Your task to perform on an android device: Do I have any events today? Image 0: 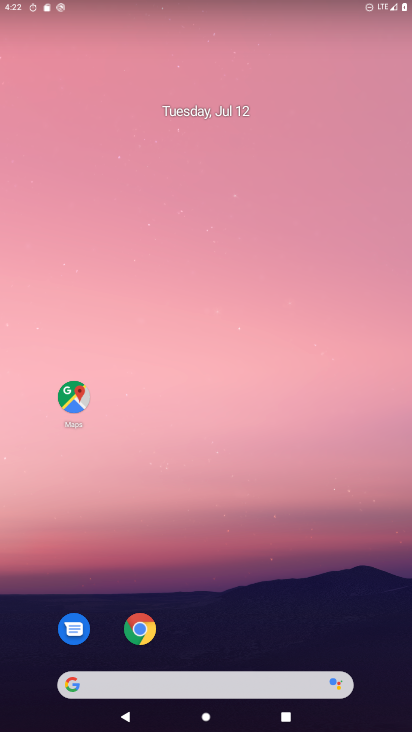
Step 0: press home button
Your task to perform on an android device: Do I have any events today? Image 1: 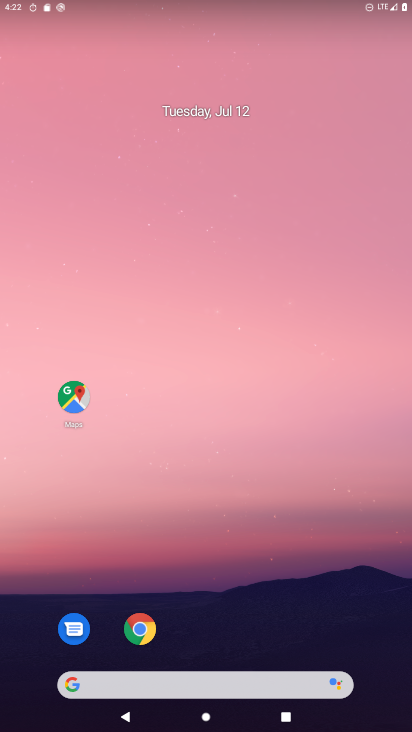
Step 1: press home button
Your task to perform on an android device: Do I have any events today? Image 2: 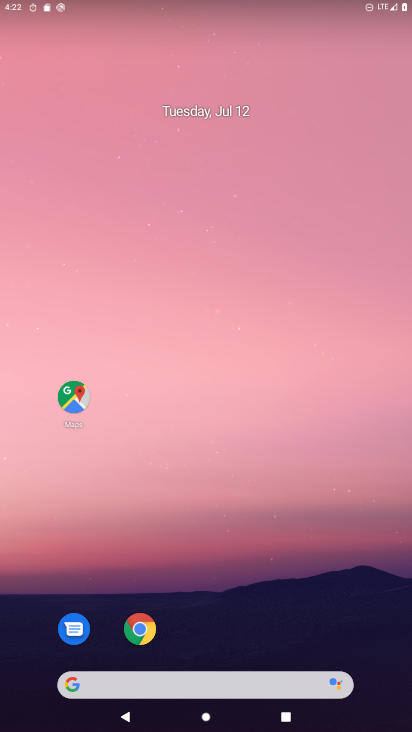
Step 2: drag from (230, 606) to (338, 148)
Your task to perform on an android device: Do I have any events today? Image 3: 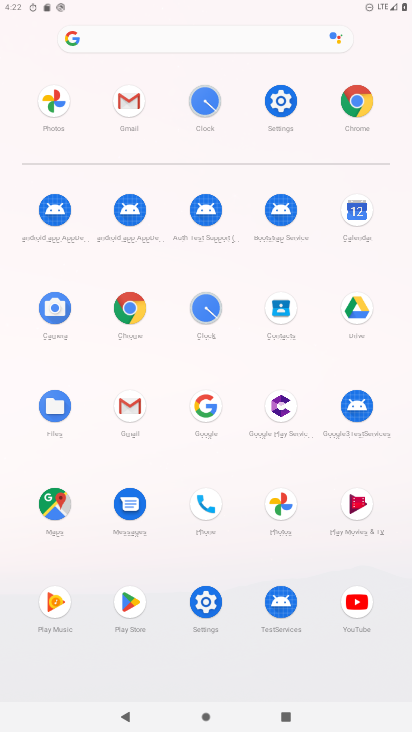
Step 3: click (279, 509)
Your task to perform on an android device: Do I have any events today? Image 4: 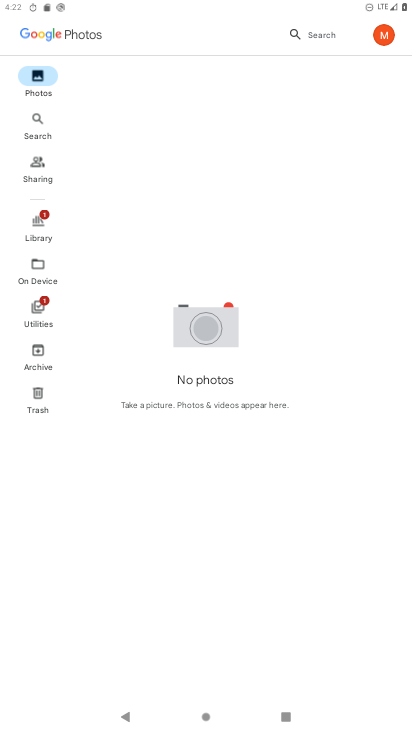
Step 4: press home button
Your task to perform on an android device: Do I have any events today? Image 5: 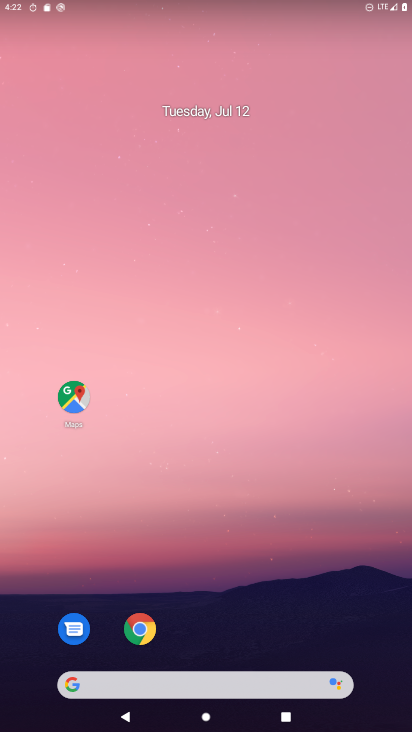
Step 5: drag from (299, 650) to (260, 192)
Your task to perform on an android device: Do I have any events today? Image 6: 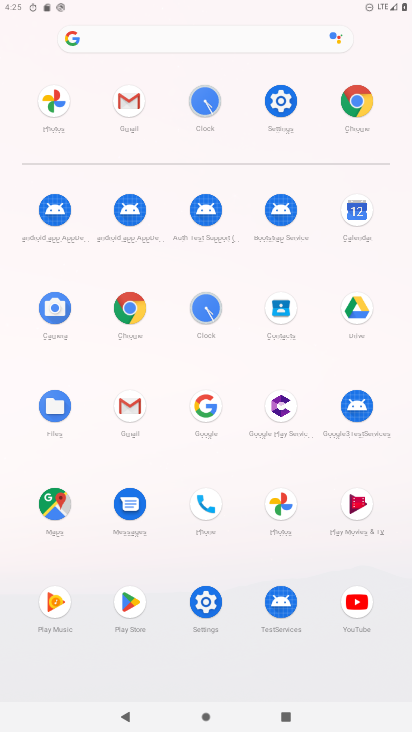
Step 6: click (363, 222)
Your task to perform on an android device: Do I have any events today? Image 7: 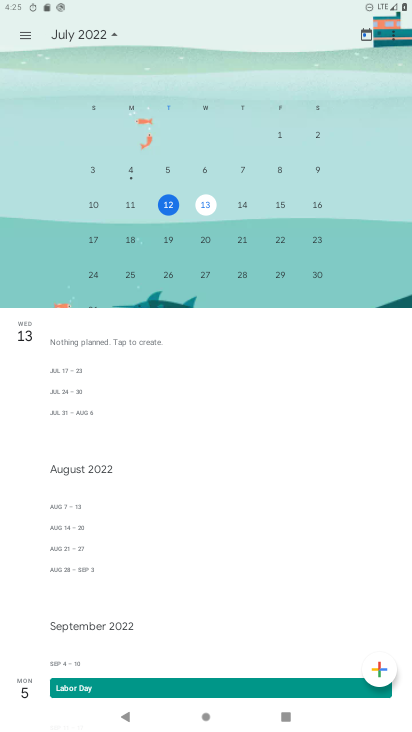
Step 7: click (166, 206)
Your task to perform on an android device: Do I have any events today? Image 8: 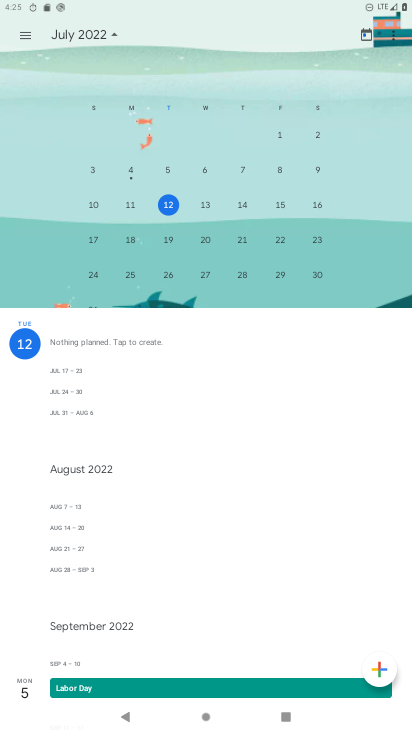
Step 8: task complete